Your task to perform on an android device: Clear the cart on ebay. Add "asus rog" to the cart on ebay Image 0: 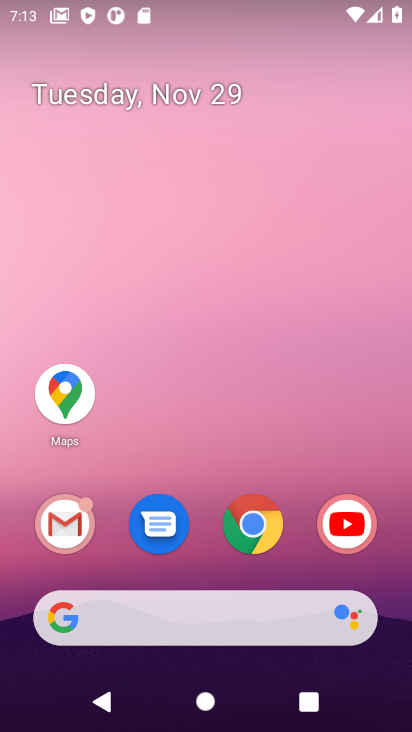
Step 0: click (255, 524)
Your task to perform on an android device: Clear the cart on ebay. Add "asus rog" to the cart on ebay Image 1: 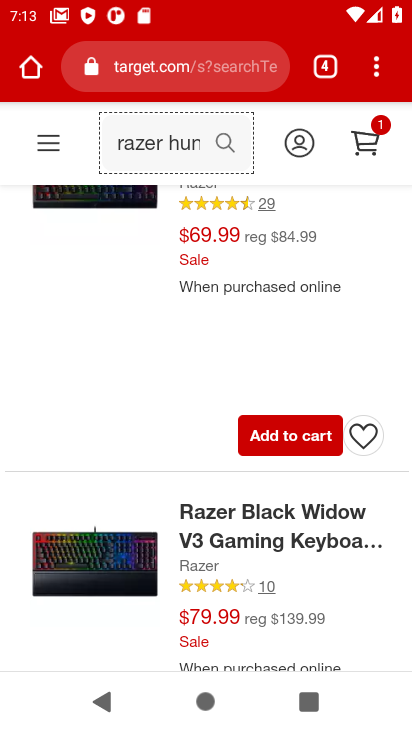
Step 1: click (141, 75)
Your task to perform on an android device: Clear the cart on ebay. Add "asus rog" to the cart on ebay Image 2: 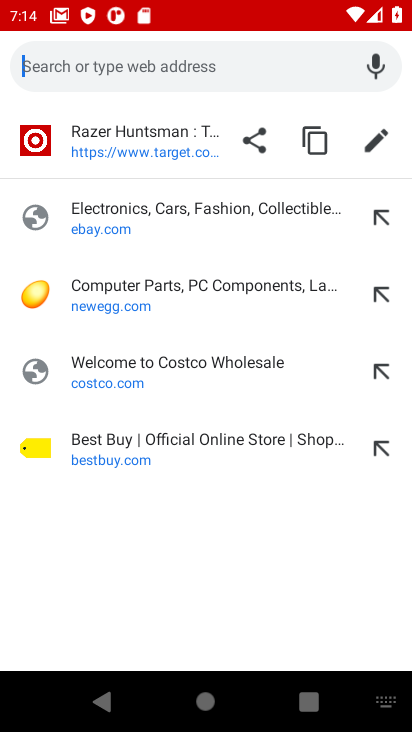
Step 2: click (81, 235)
Your task to perform on an android device: Clear the cart on ebay. Add "asus rog" to the cart on ebay Image 3: 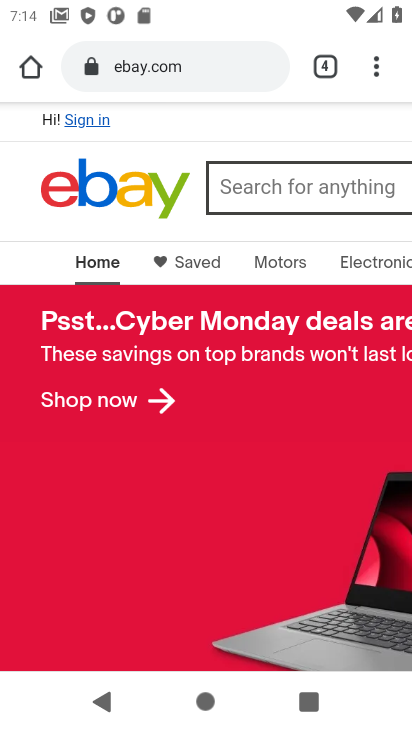
Step 3: click (261, 181)
Your task to perform on an android device: Clear the cart on ebay. Add "asus rog" to the cart on ebay Image 4: 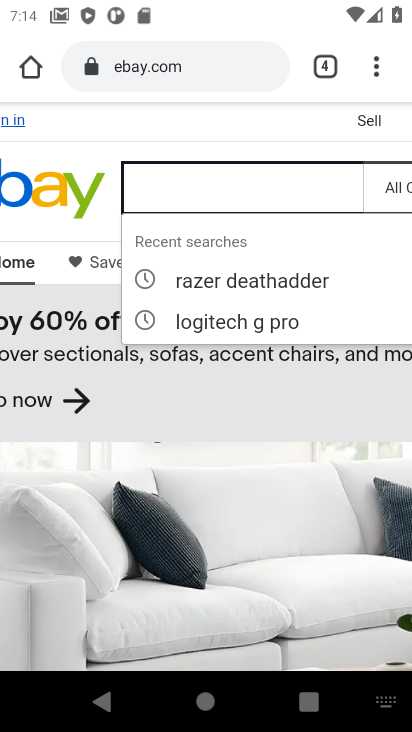
Step 4: type "asus rog"
Your task to perform on an android device: Clear the cart on ebay. Add "asus rog" to the cart on ebay Image 5: 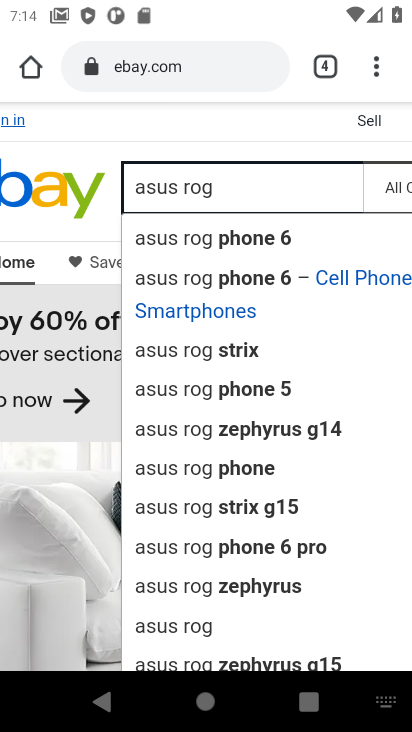
Step 5: click (184, 635)
Your task to perform on an android device: Clear the cart on ebay. Add "asus rog" to the cart on ebay Image 6: 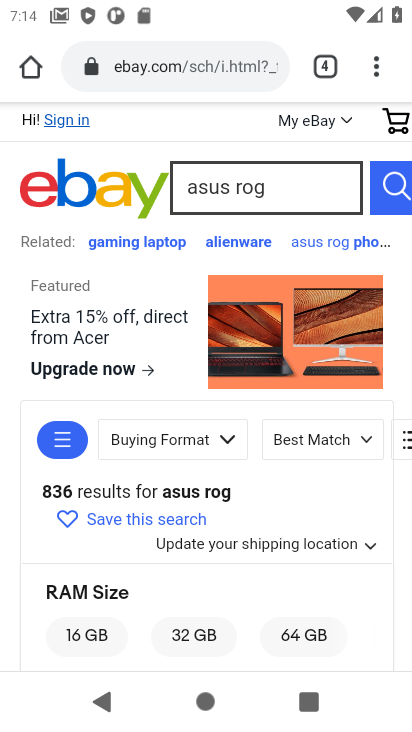
Step 6: drag from (286, 483) to (269, 266)
Your task to perform on an android device: Clear the cart on ebay. Add "asus rog" to the cart on ebay Image 7: 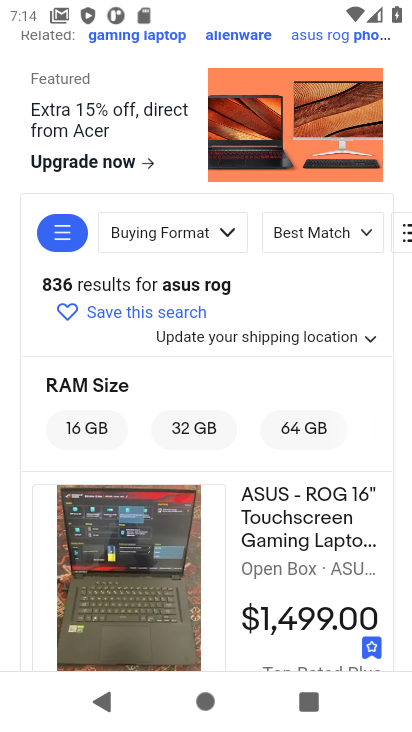
Step 7: drag from (232, 504) to (218, 291)
Your task to perform on an android device: Clear the cart on ebay. Add "asus rog" to the cart on ebay Image 8: 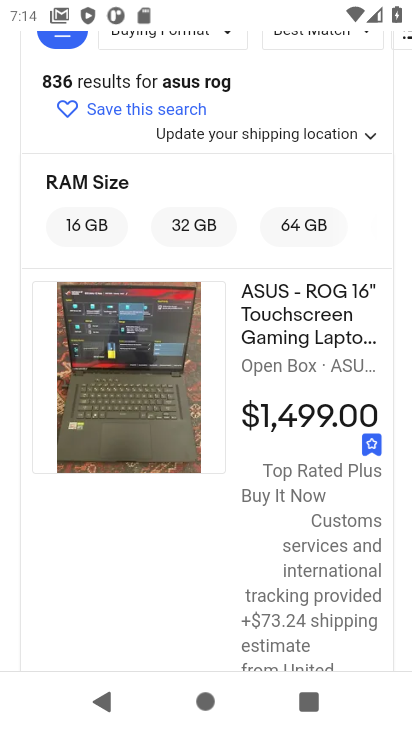
Step 8: click (153, 405)
Your task to perform on an android device: Clear the cart on ebay. Add "asus rog" to the cart on ebay Image 9: 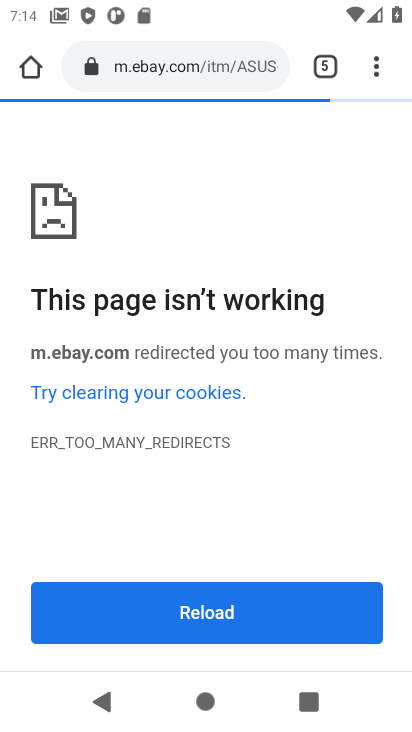
Step 9: task complete